Your task to perform on an android device: set the stopwatch Image 0: 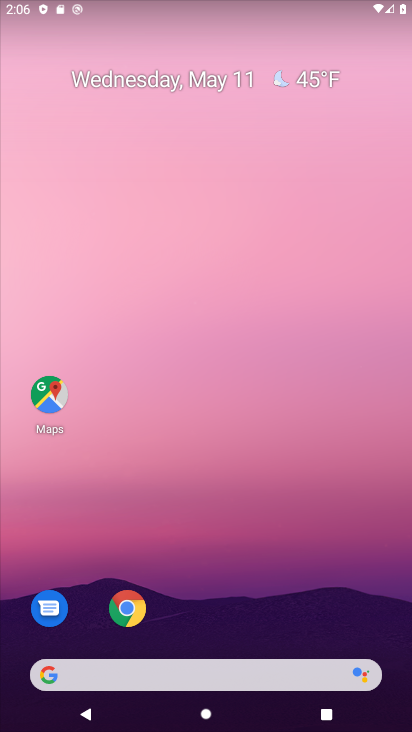
Step 0: drag from (221, 550) to (225, 116)
Your task to perform on an android device: set the stopwatch Image 1: 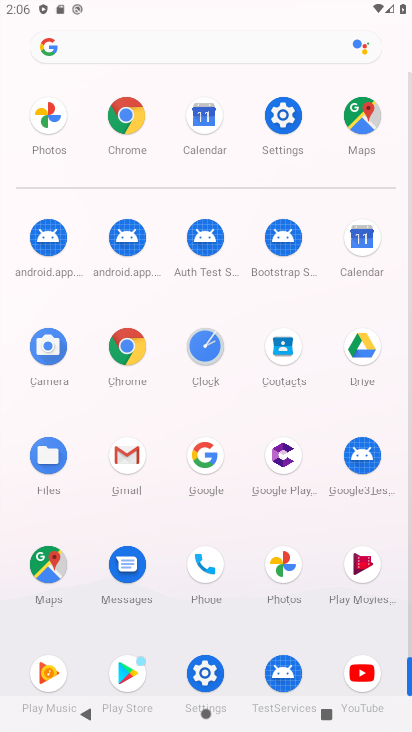
Step 1: click (207, 349)
Your task to perform on an android device: set the stopwatch Image 2: 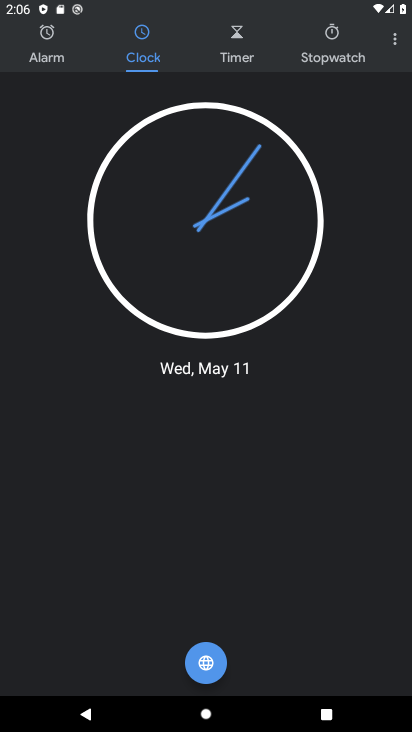
Step 2: click (334, 49)
Your task to perform on an android device: set the stopwatch Image 3: 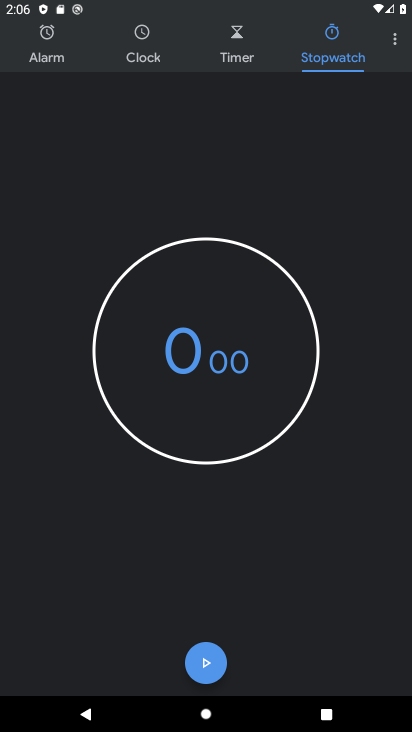
Step 3: click (205, 665)
Your task to perform on an android device: set the stopwatch Image 4: 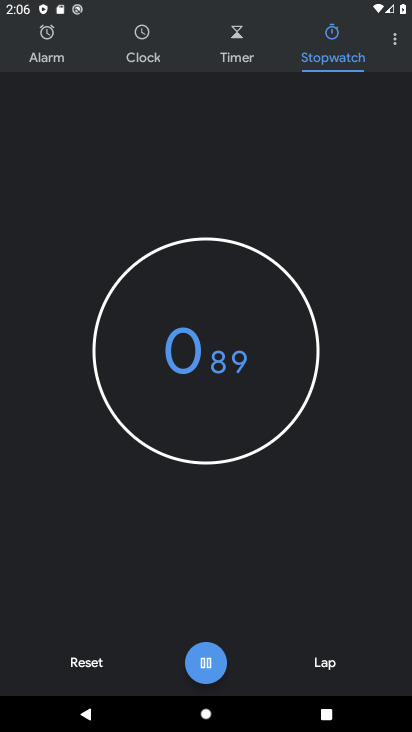
Step 4: click (205, 665)
Your task to perform on an android device: set the stopwatch Image 5: 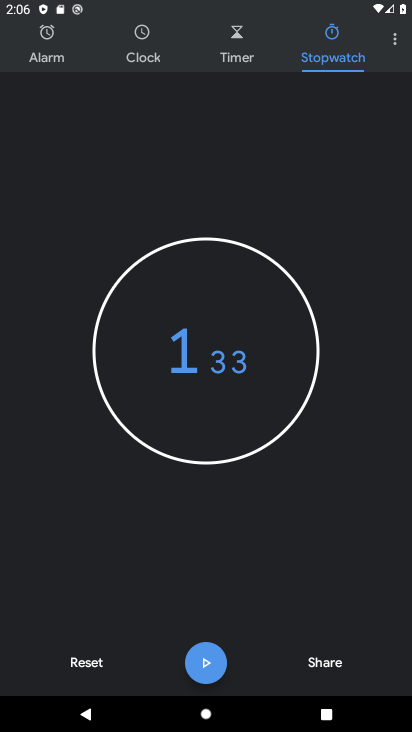
Step 5: task complete